Your task to perform on an android device: toggle translation in the chrome app Image 0: 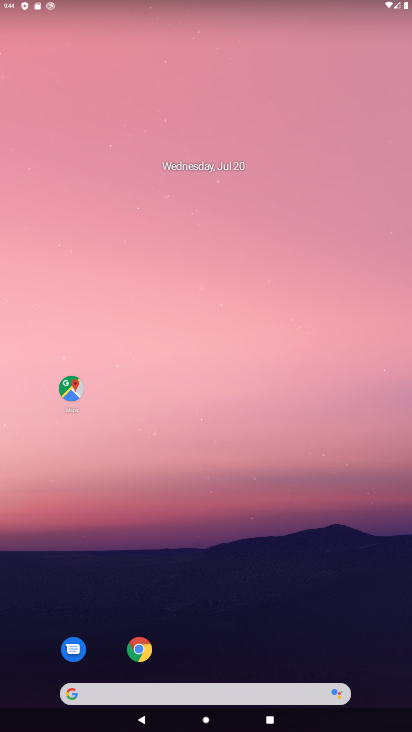
Step 0: drag from (265, 130) to (263, 90)
Your task to perform on an android device: toggle translation in the chrome app Image 1: 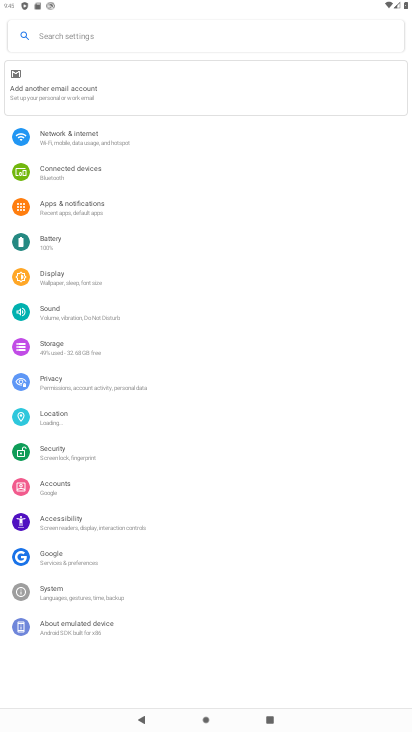
Step 1: press home button
Your task to perform on an android device: toggle translation in the chrome app Image 2: 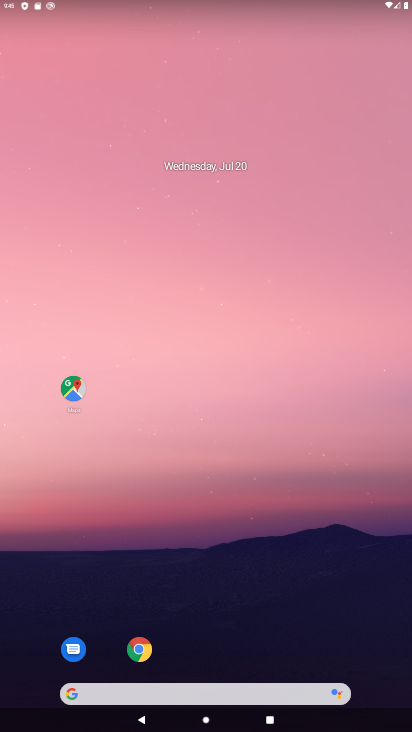
Step 2: click (143, 654)
Your task to perform on an android device: toggle translation in the chrome app Image 3: 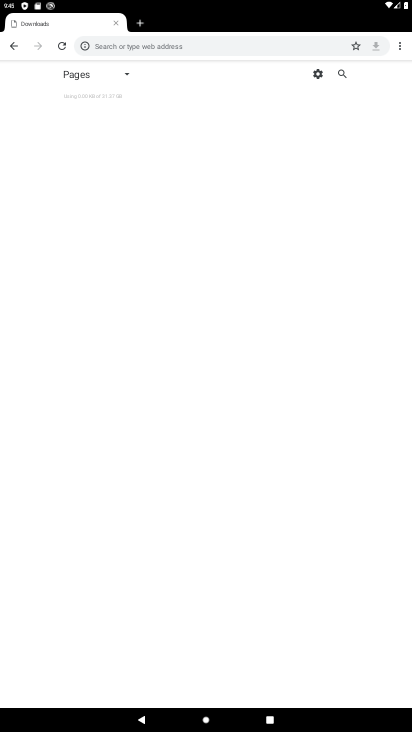
Step 3: click (404, 42)
Your task to perform on an android device: toggle translation in the chrome app Image 4: 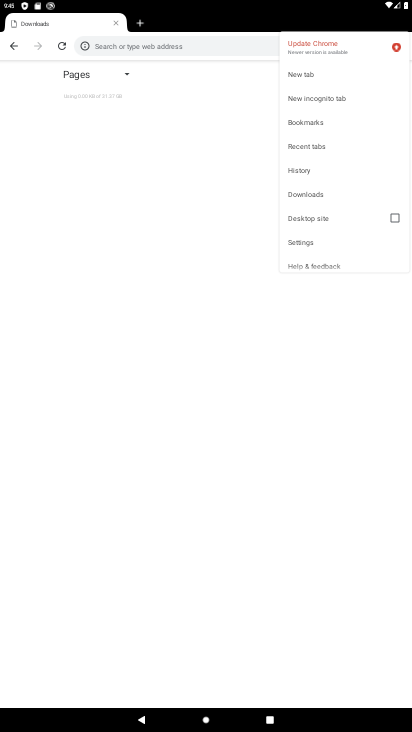
Step 4: click (310, 244)
Your task to perform on an android device: toggle translation in the chrome app Image 5: 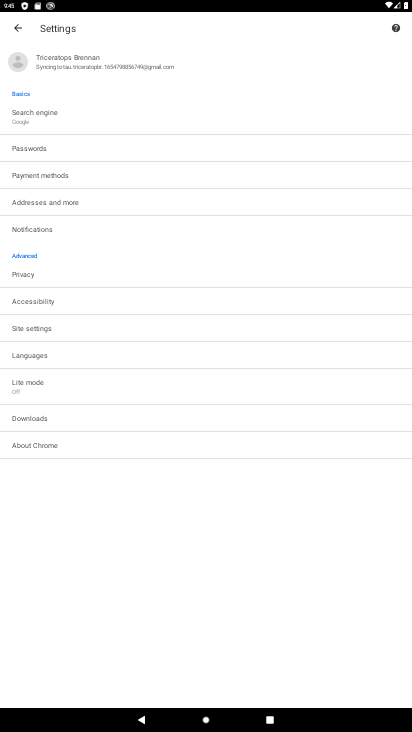
Step 5: click (86, 354)
Your task to perform on an android device: toggle translation in the chrome app Image 6: 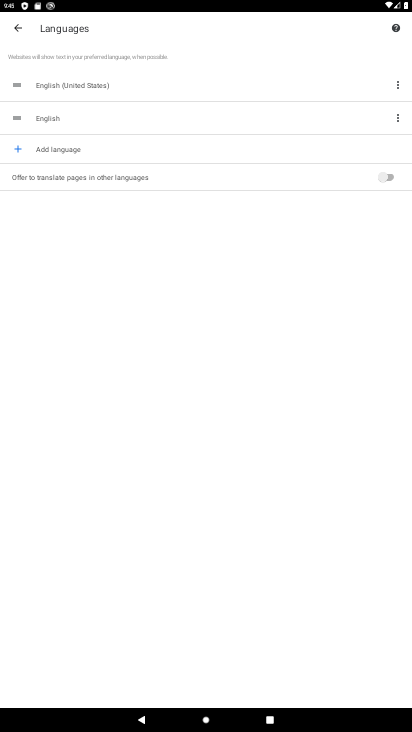
Step 6: click (389, 178)
Your task to perform on an android device: toggle translation in the chrome app Image 7: 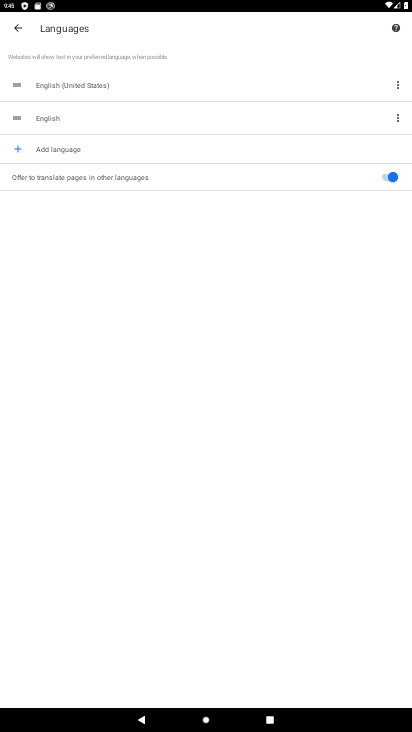
Step 7: task complete